Your task to perform on an android device: Open calendar and show me the second week of next month Image 0: 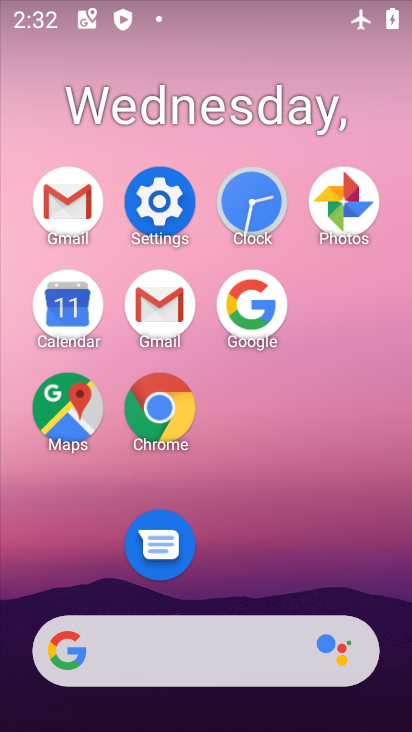
Step 0: click (86, 303)
Your task to perform on an android device: Open calendar and show me the second week of next month Image 1: 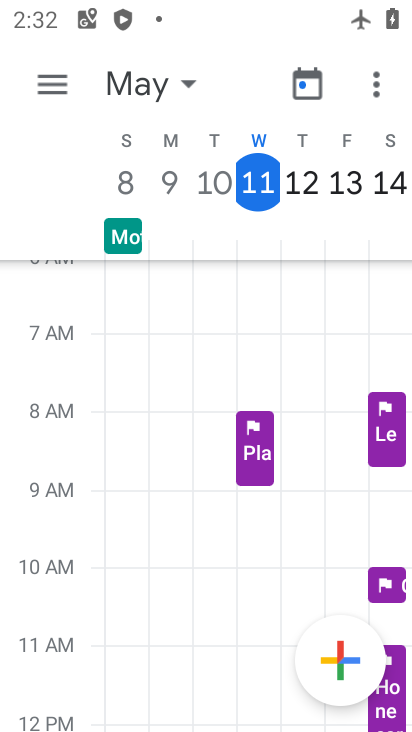
Step 1: click (163, 80)
Your task to perform on an android device: Open calendar and show me the second week of next month Image 2: 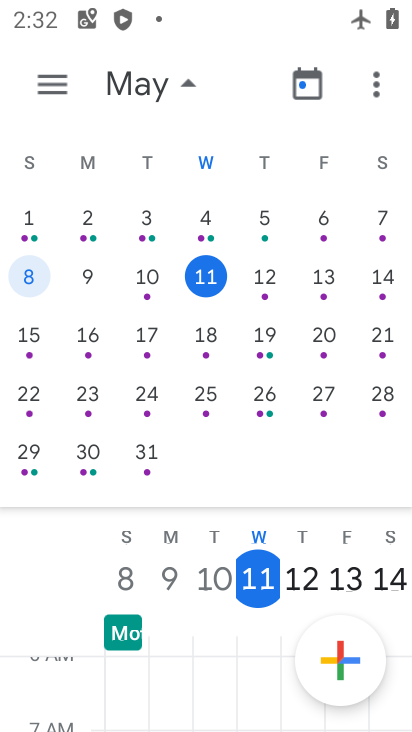
Step 2: drag from (396, 321) to (70, 296)
Your task to perform on an android device: Open calendar and show me the second week of next month Image 3: 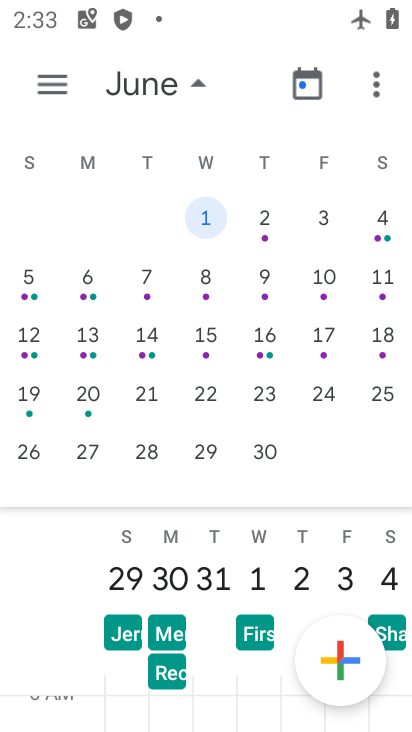
Step 3: click (52, 85)
Your task to perform on an android device: Open calendar and show me the second week of next month Image 4: 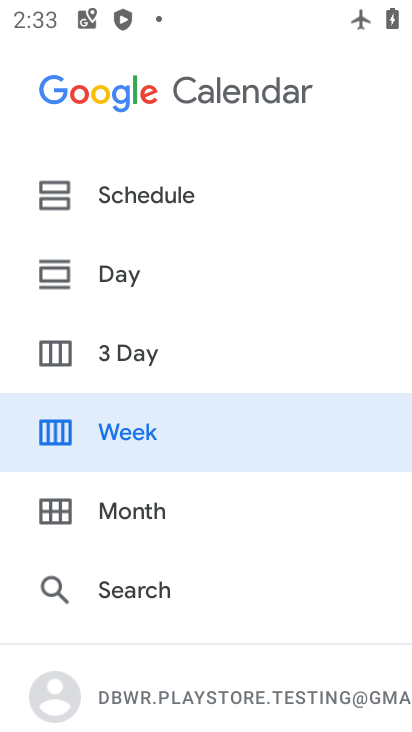
Step 4: click (191, 429)
Your task to perform on an android device: Open calendar and show me the second week of next month Image 5: 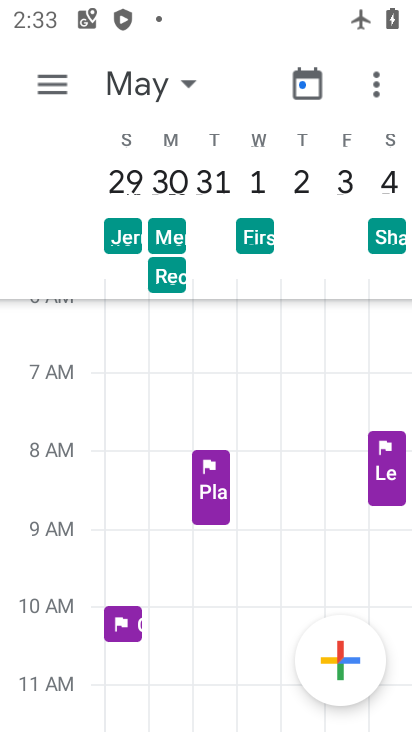
Step 5: task complete